Your task to perform on an android device: Open Chrome and go to the settings page Image 0: 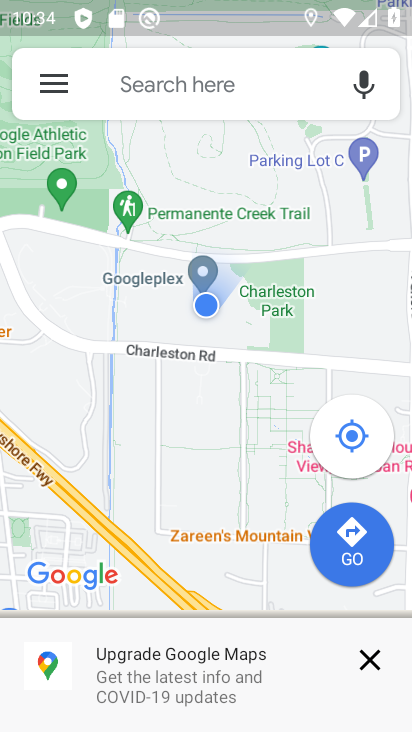
Step 0: press home button
Your task to perform on an android device: Open Chrome and go to the settings page Image 1: 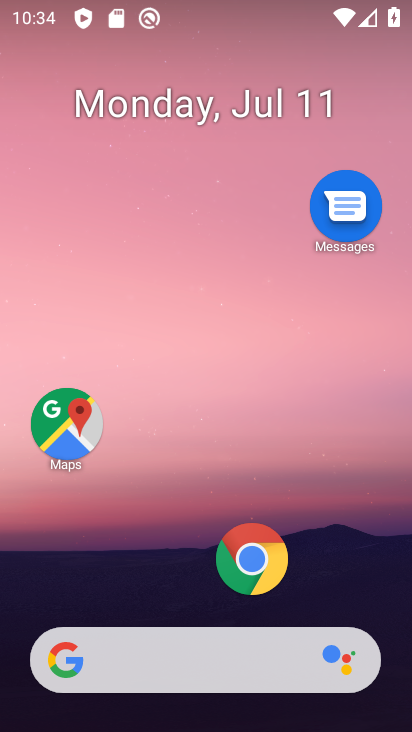
Step 1: drag from (349, 540) to (349, 112)
Your task to perform on an android device: Open Chrome and go to the settings page Image 2: 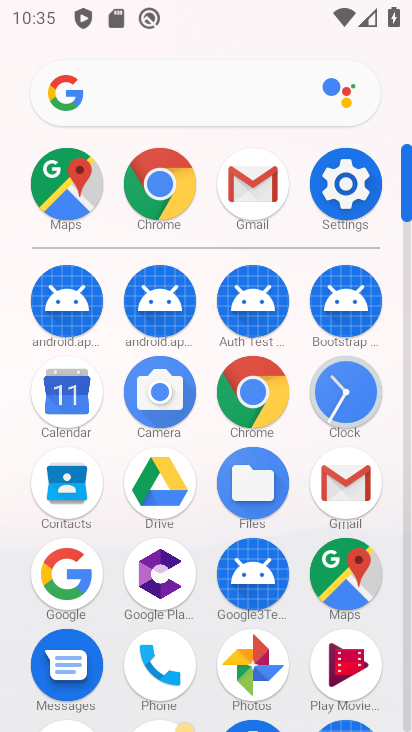
Step 2: click (247, 393)
Your task to perform on an android device: Open Chrome and go to the settings page Image 3: 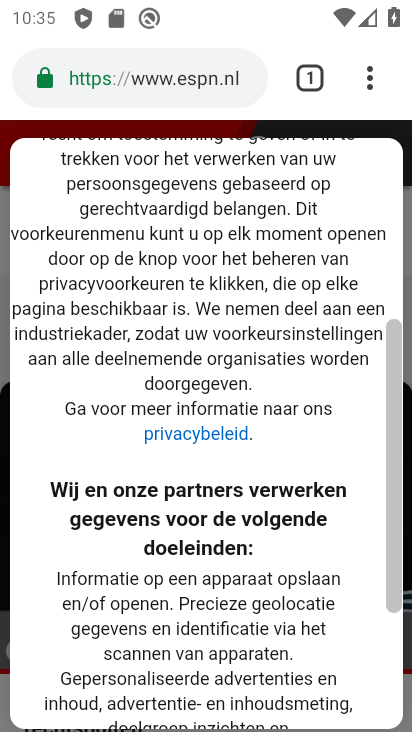
Step 3: click (368, 84)
Your task to perform on an android device: Open Chrome and go to the settings page Image 4: 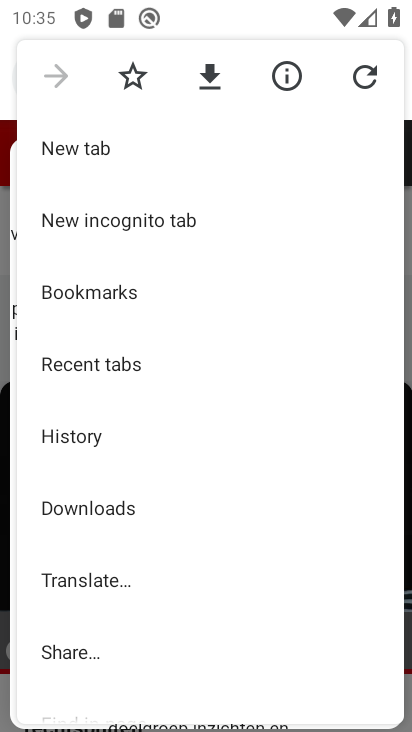
Step 4: drag from (275, 406) to (262, 294)
Your task to perform on an android device: Open Chrome and go to the settings page Image 5: 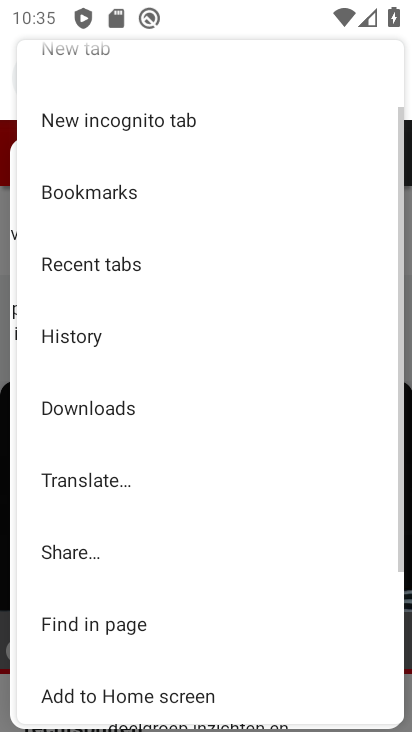
Step 5: drag from (271, 419) to (266, 284)
Your task to perform on an android device: Open Chrome and go to the settings page Image 6: 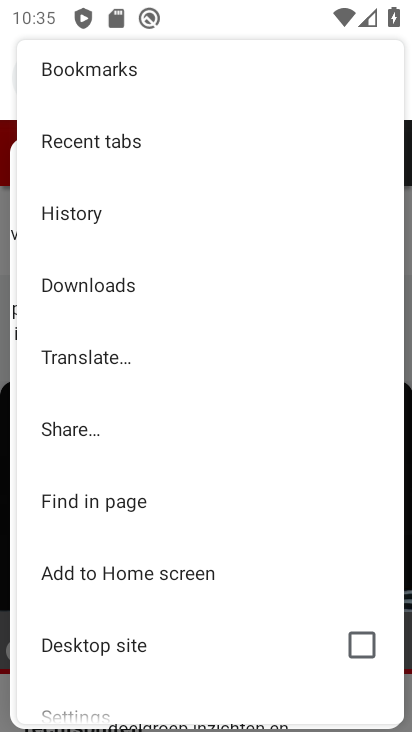
Step 6: drag from (281, 441) to (271, 293)
Your task to perform on an android device: Open Chrome and go to the settings page Image 7: 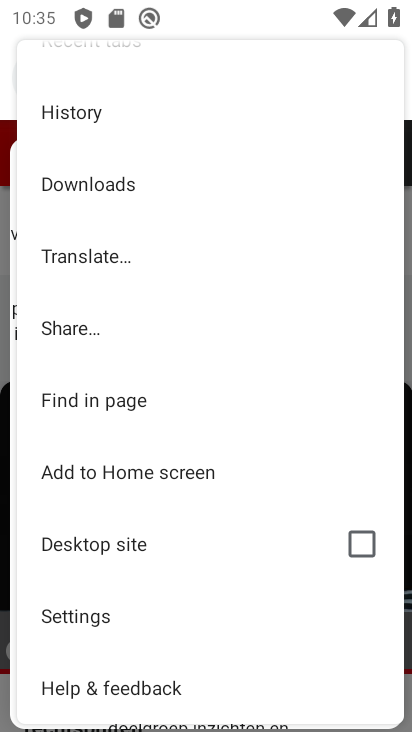
Step 7: click (104, 630)
Your task to perform on an android device: Open Chrome and go to the settings page Image 8: 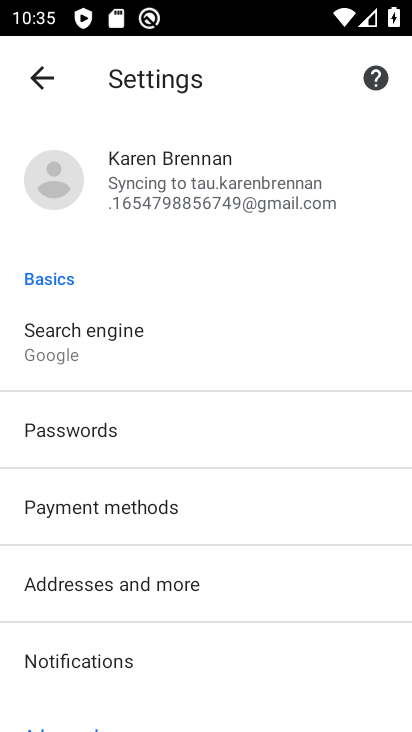
Step 8: task complete